Your task to perform on an android device: Clear the cart on walmart.com. Image 0: 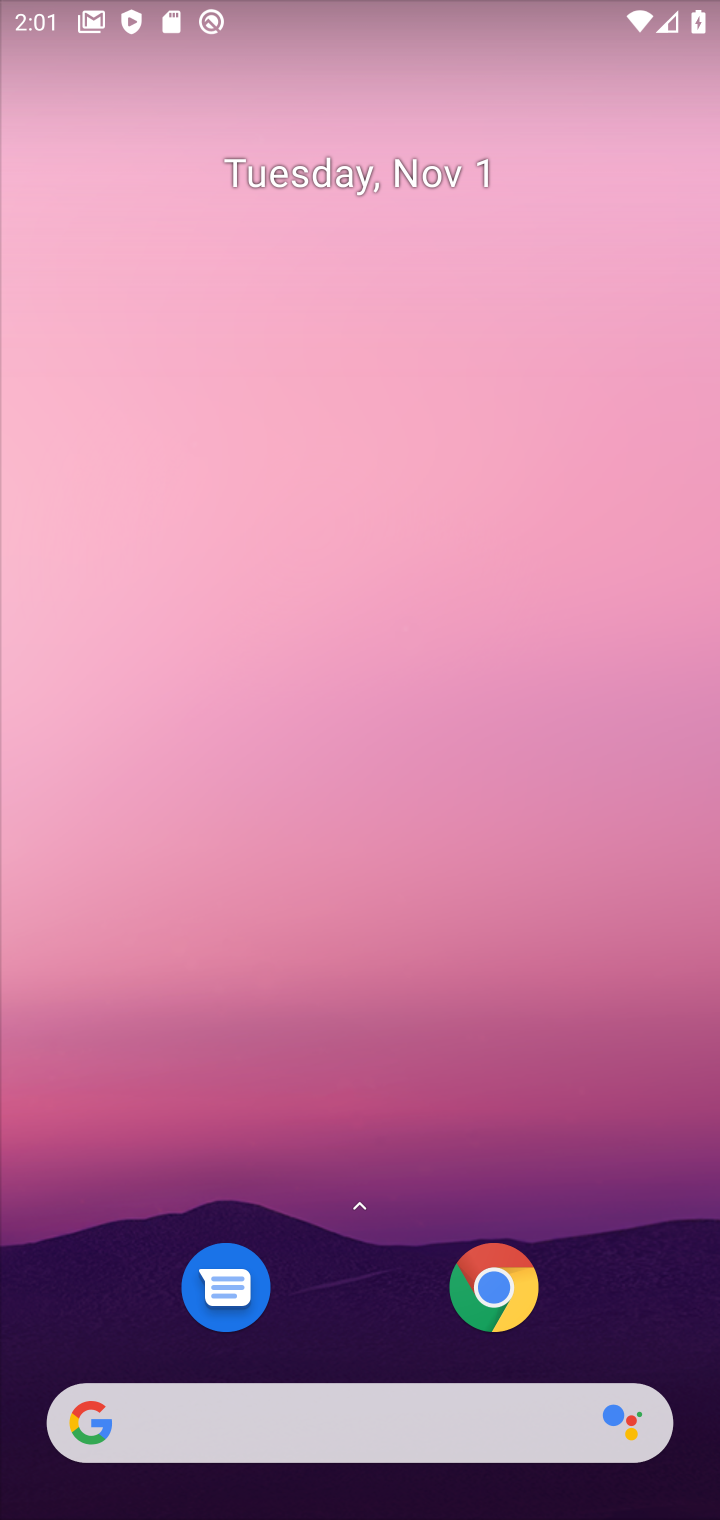
Step 0: drag from (388, 1255) to (415, 311)
Your task to perform on an android device: Clear the cart on walmart.com. Image 1: 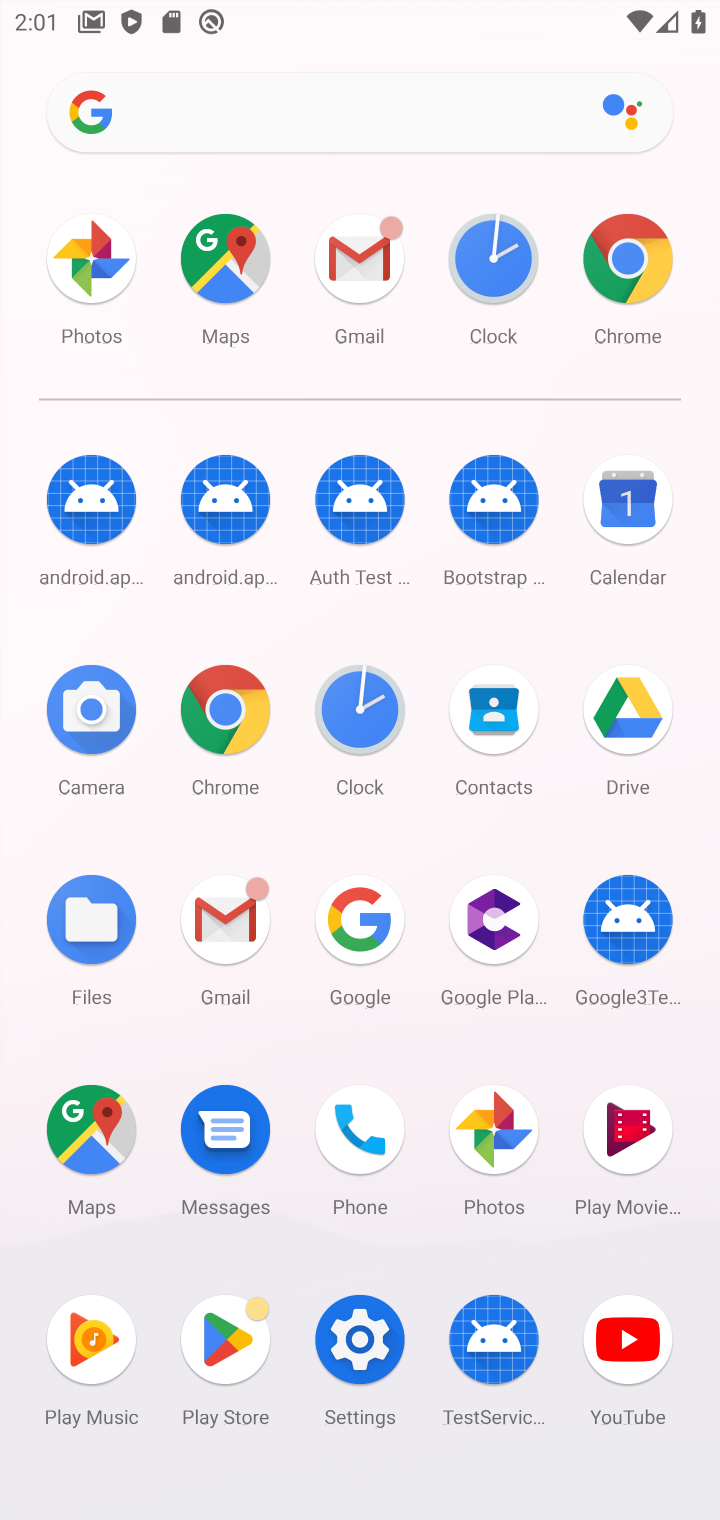
Step 1: click (230, 719)
Your task to perform on an android device: Clear the cart on walmart.com. Image 2: 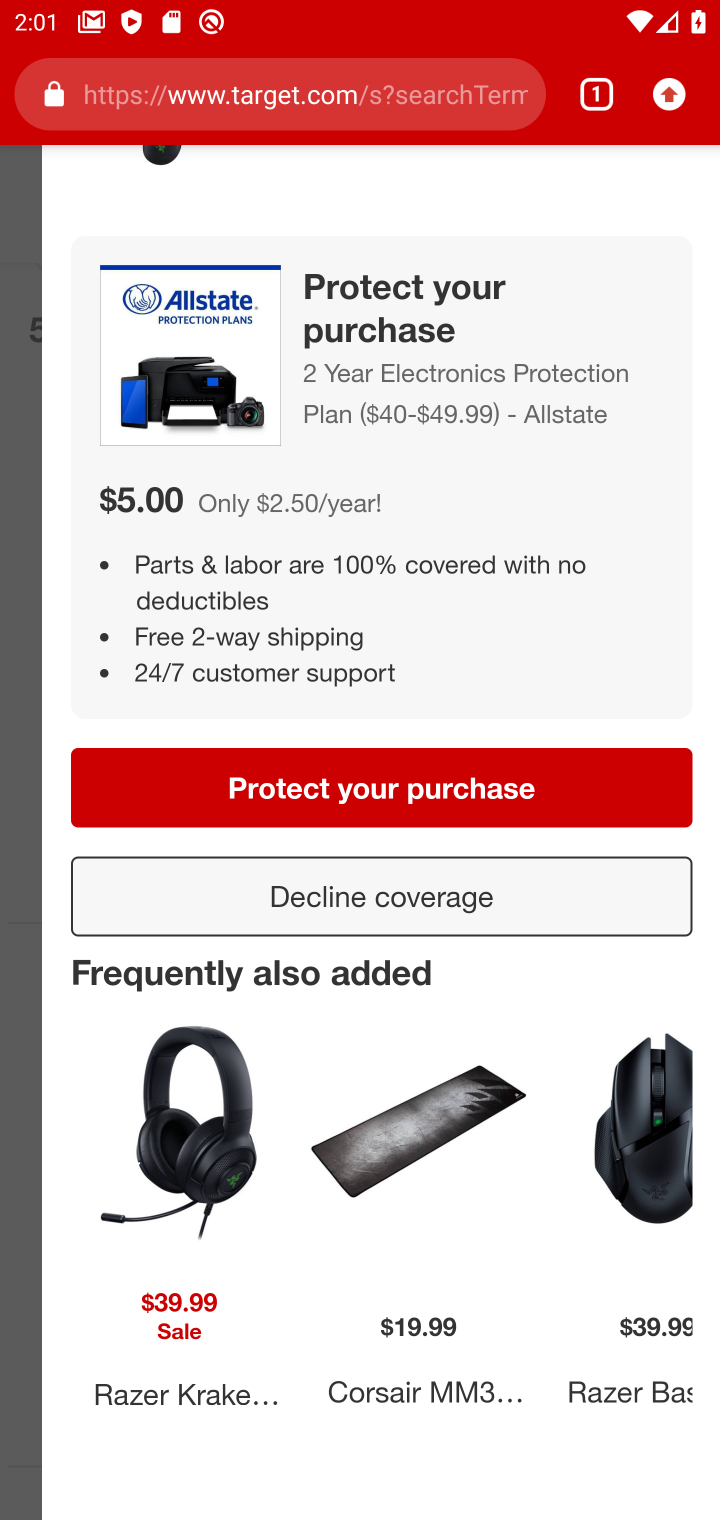
Step 2: drag from (487, 291) to (451, 992)
Your task to perform on an android device: Clear the cart on walmart.com. Image 3: 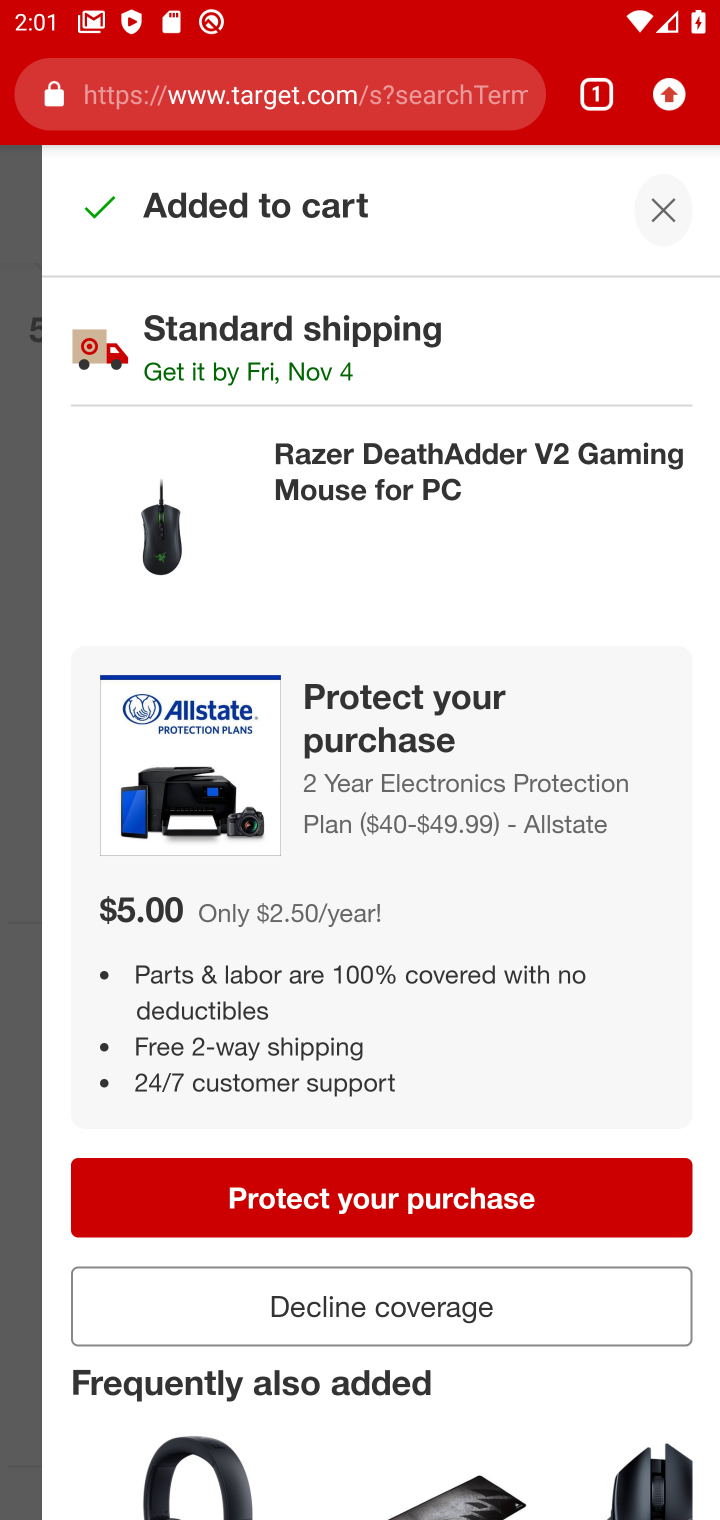
Step 3: click (399, 88)
Your task to perform on an android device: Clear the cart on walmart.com. Image 4: 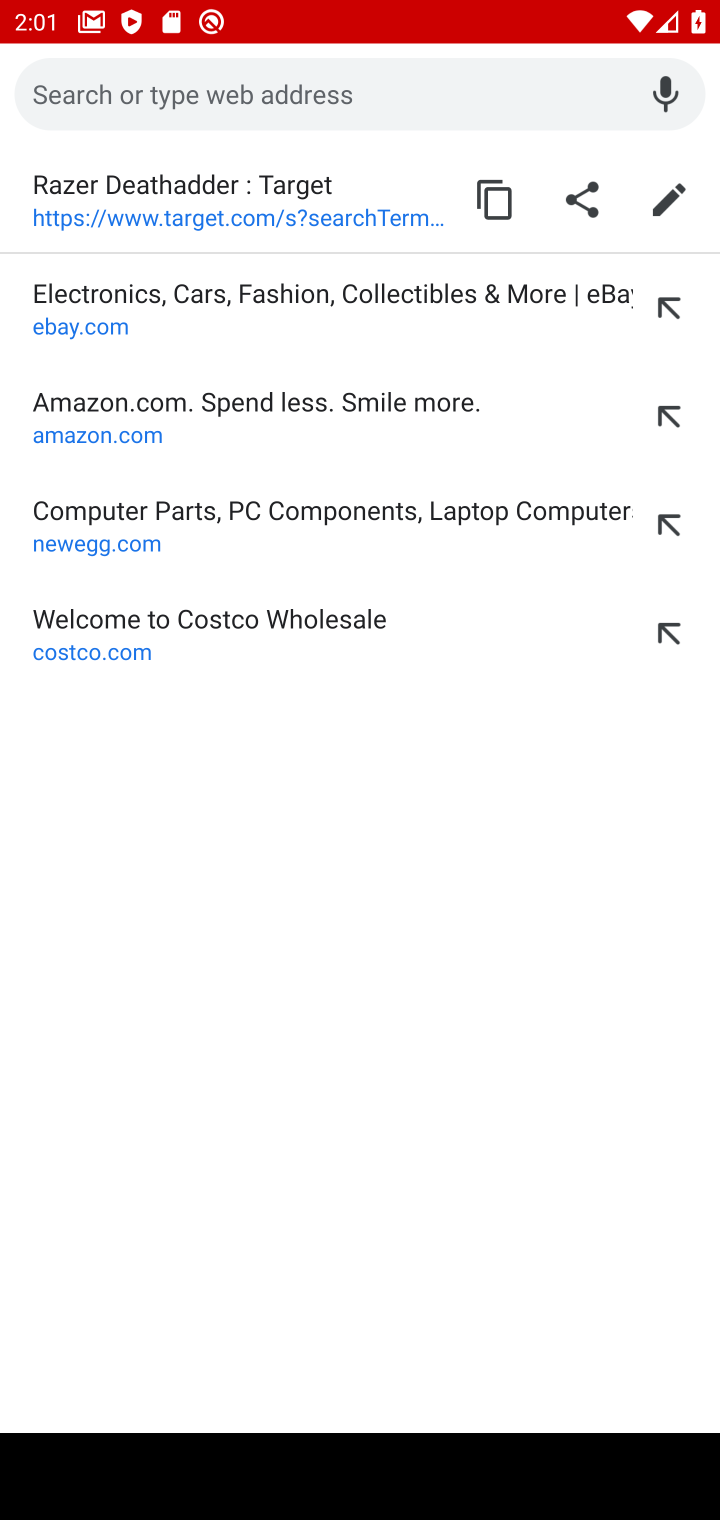
Step 4: type "walmart.com"
Your task to perform on an android device: Clear the cart on walmart.com. Image 5: 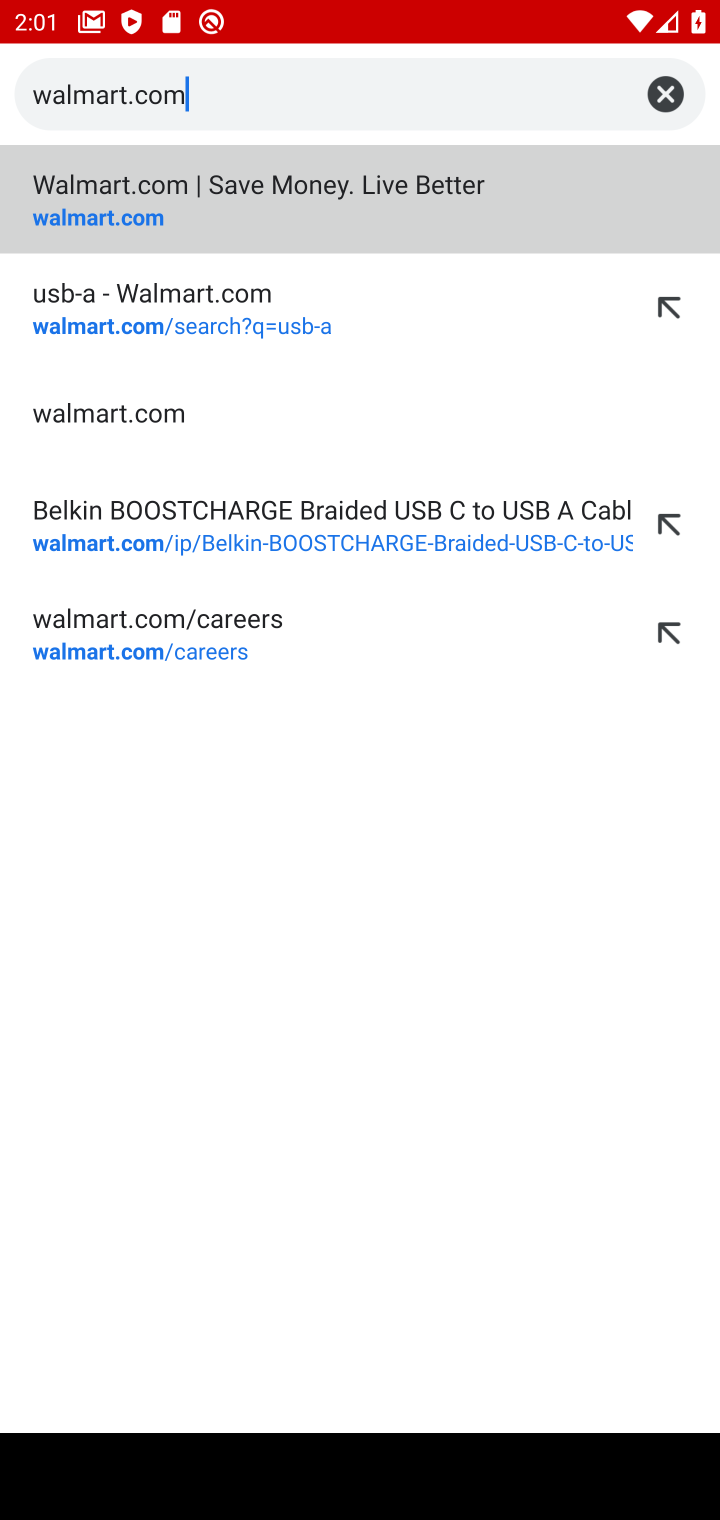
Step 5: press enter
Your task to perform on an android device: Clear the cart on walmart.com. Image 6: 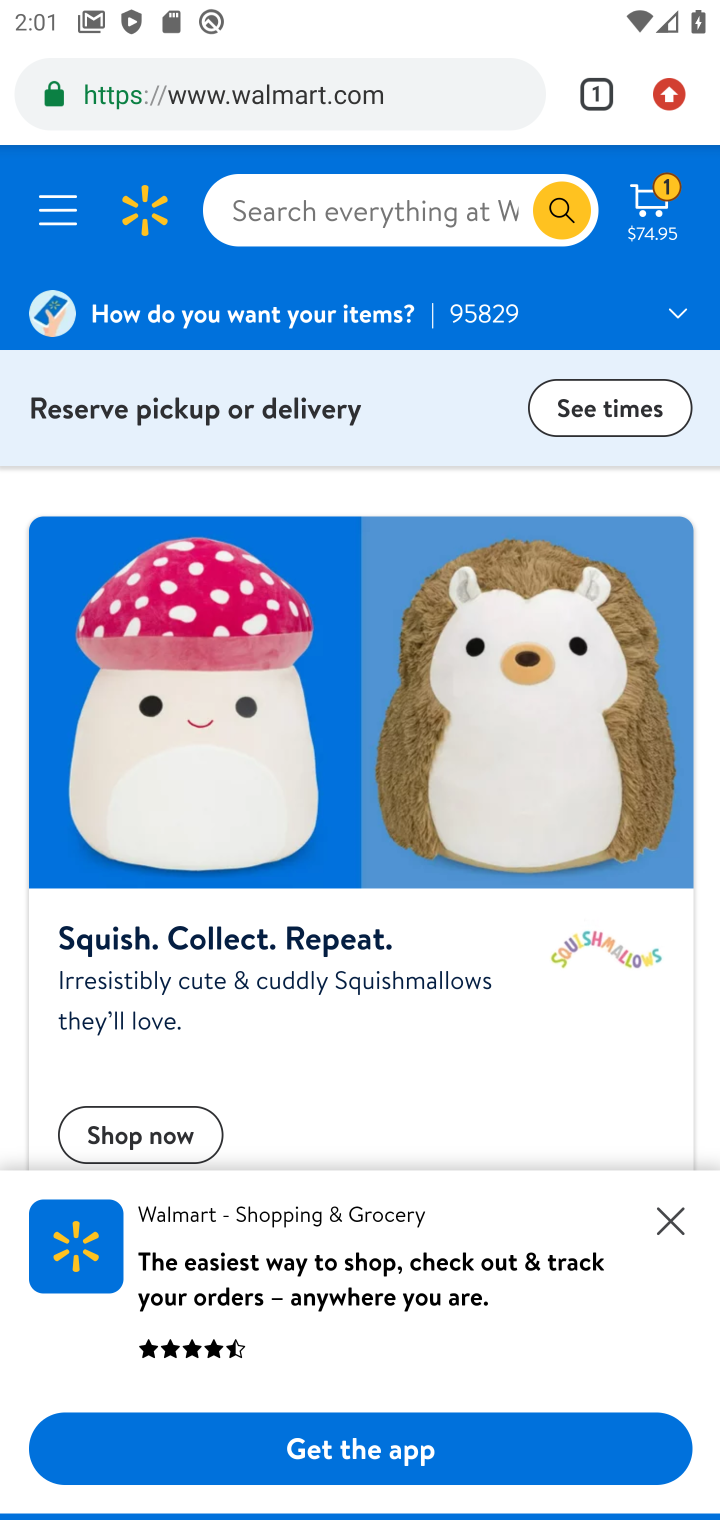
Step 6: click (660, 202)
Your task to perform on an android device: Clear the cart on walmart.com. Image 7: 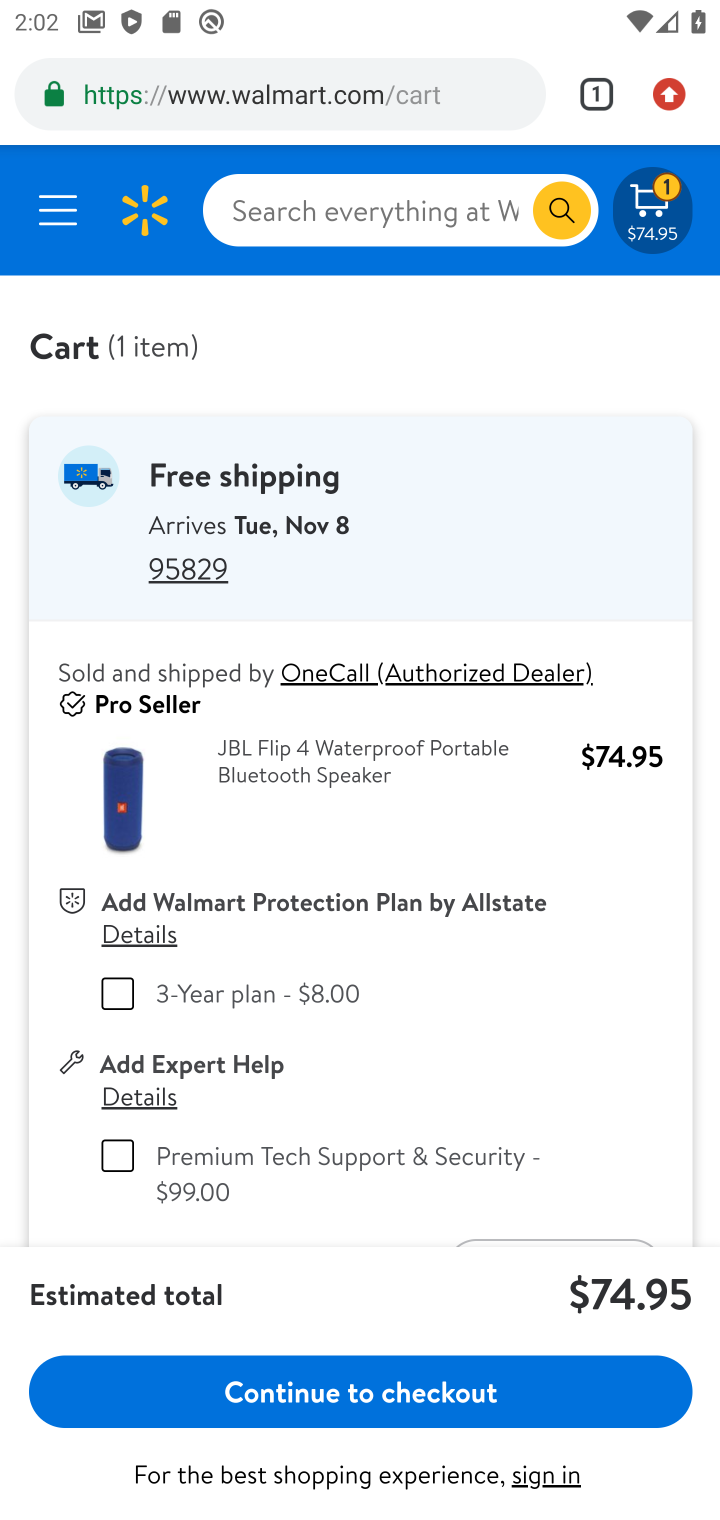
Step 7: drag from (425, 1091) to (470, 593)
Your task to perform on an android device: Clear the cart on walmart.com. Image 8: 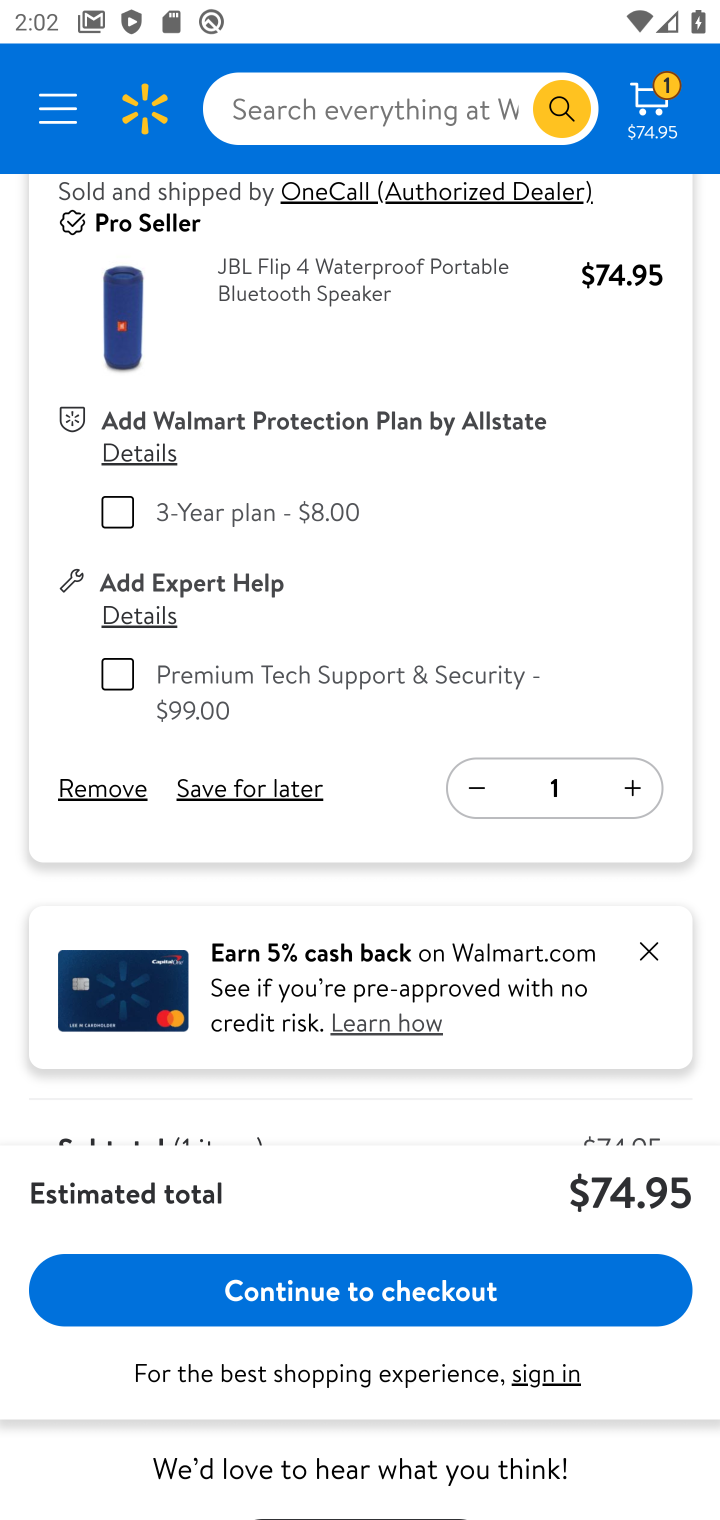
Step 8: click (132, 795)
Your task to perform on an android device: Clear the cart on walmart.com. Image 9: 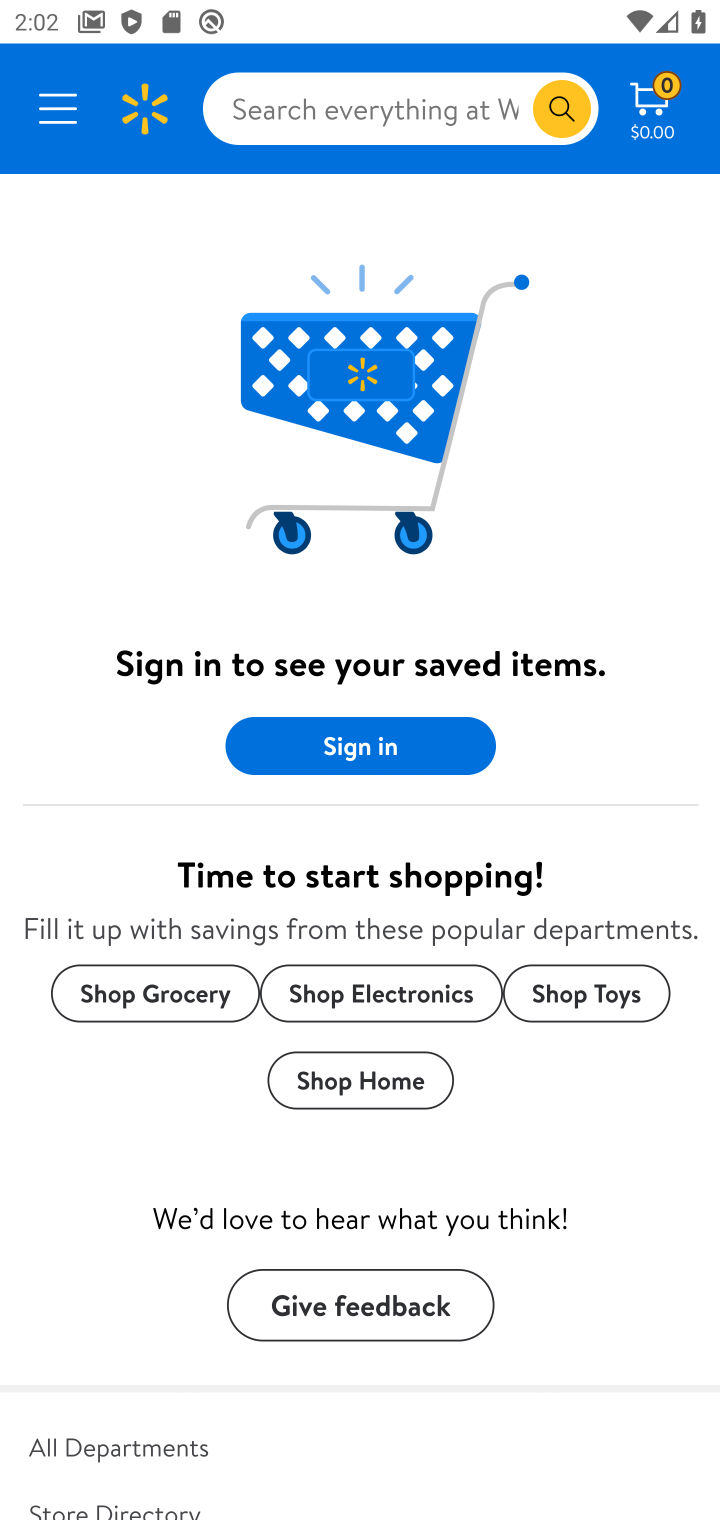
Step 9: task complete